Your task to perform on an android device: turn off notifications in google photos Image 0: 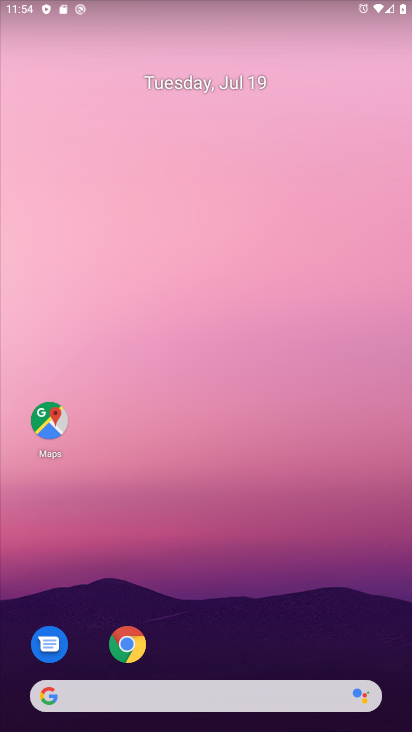
Step 0: drag from (275, 641) to (275, 206)
Your task to perform on an android device: turn off notifications in google photos Image 1: 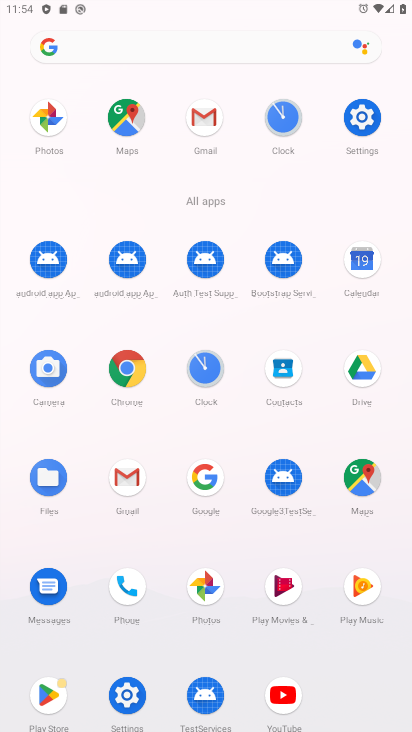
Step 1: click (31, 130)
Your task to perform on an android device: turn off notifications in google photos Image 2: 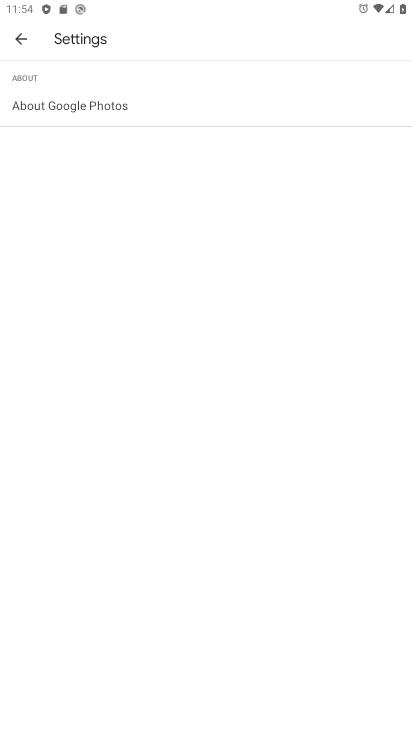
Step 2: click (17, 34)
Your task to perform on an android device: turn off notifications in google photos Image 3: 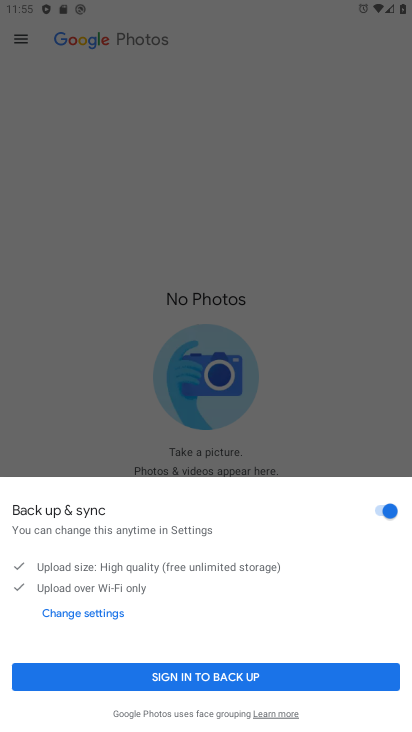
Step 3: click (249, 678)
Your task to perform on an android device: turn off notifications in google photos Image 4: 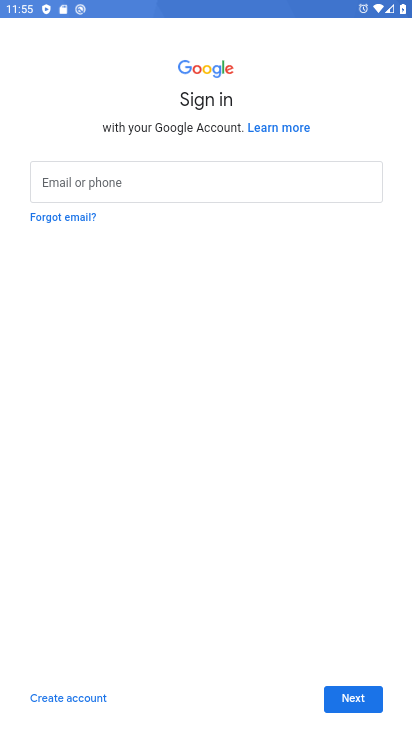
Step 4: click (344, 696)
Your task to perform on an android device: turn off notifications in google photos Image 5: 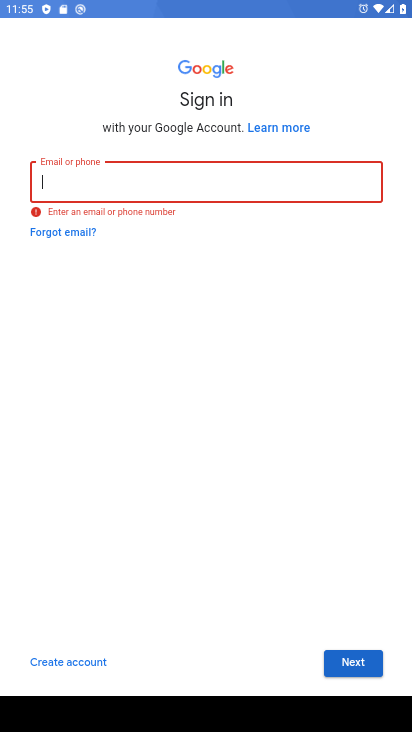
Step 5: task complete